Your task to perform on an android device: stop showing notifications on the lock screen Image 0: 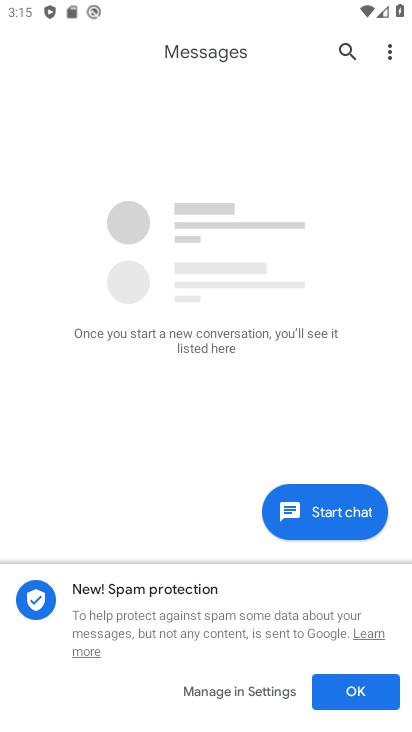
Step 0: press home button
Your task to perform on an android device: stop showing notifications on the lock screen Image 1: 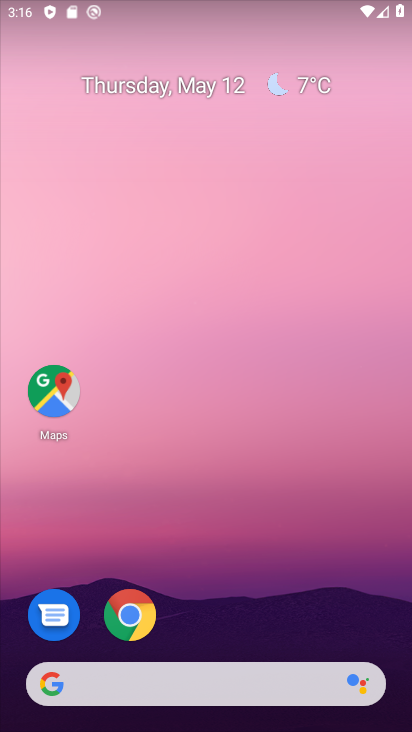
Step 1: drag from (254, 602) to (230, 79)
Your task to perform on an android device: stop showing notifications on the lock screen Image 2: 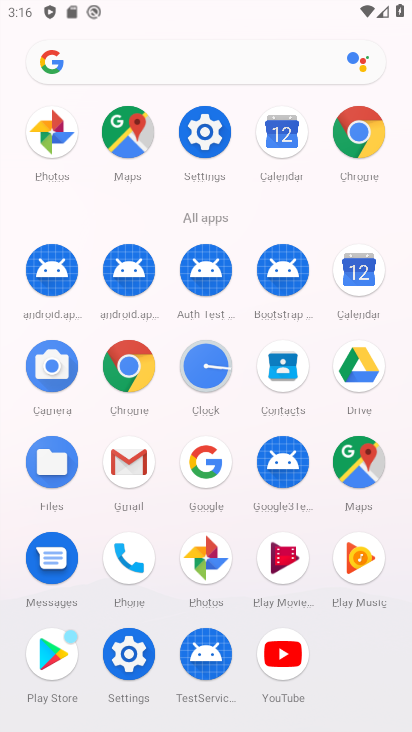
Step 2: click (207, 126)
Your task to perform on an android device: stop showing notifications on the lock screen Image 3: 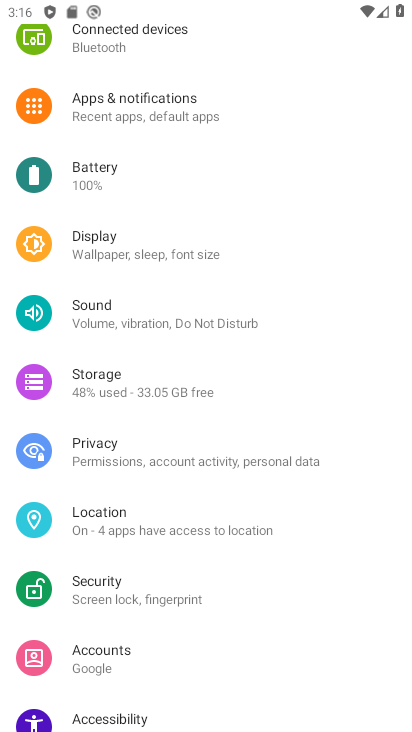
Step 3: click (144, 96)
Your task to perform on an android device: stop showing notifications on the lock screen Image 4: 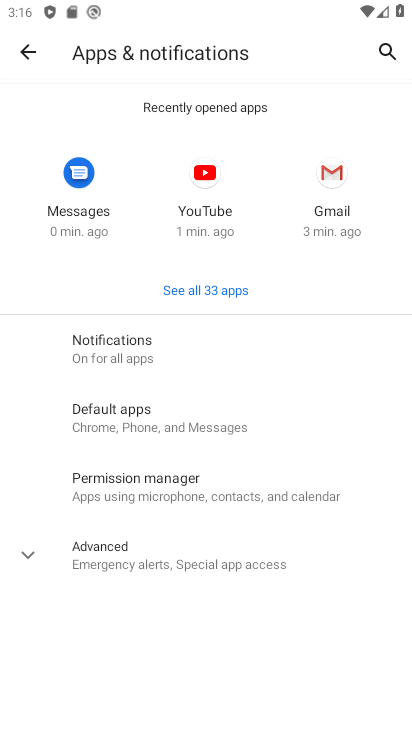
Step 4: click (137, 340)
Your task to perform on an android device: stop showing notifications on the lock screen Image 5: 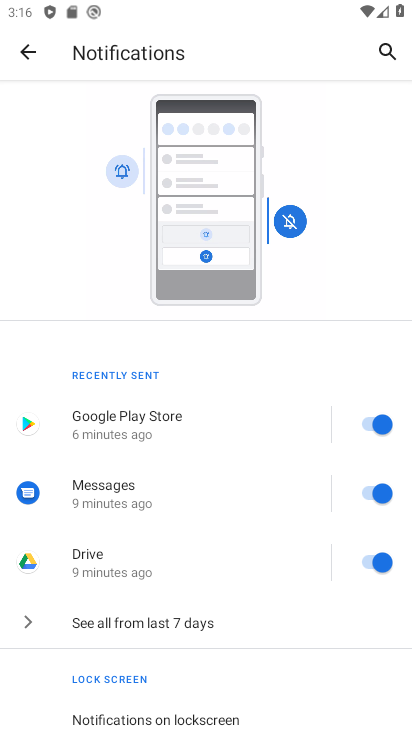
Step 5: drag from (176, 649) to (166, 205)
Your task to perform on an android device: stop showing notifications on the lock screen Image 6: 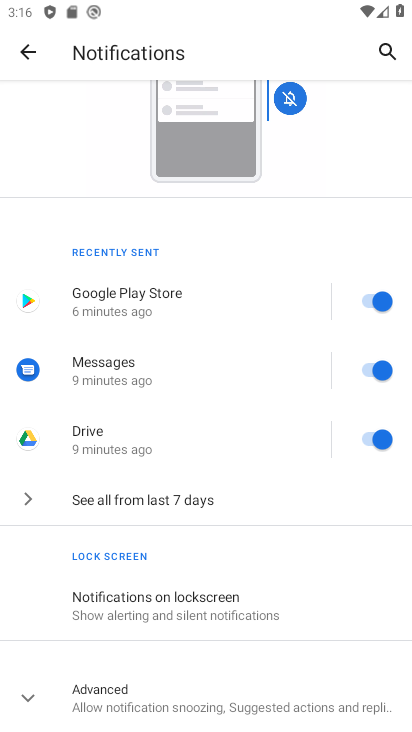
Step 6: click (253, 613)
Your task to perform on an android device: stop showing notifications on the lock screen Image 7: 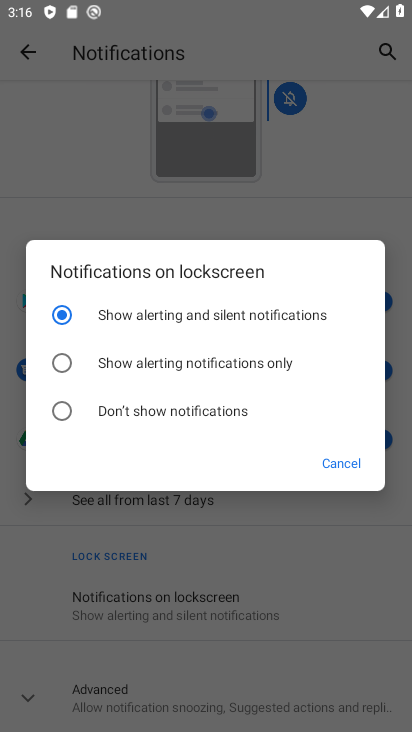
Step 7: click (162, 411)
Your task to perform on an android device: stop showing notifications on the lock screen Image 8: 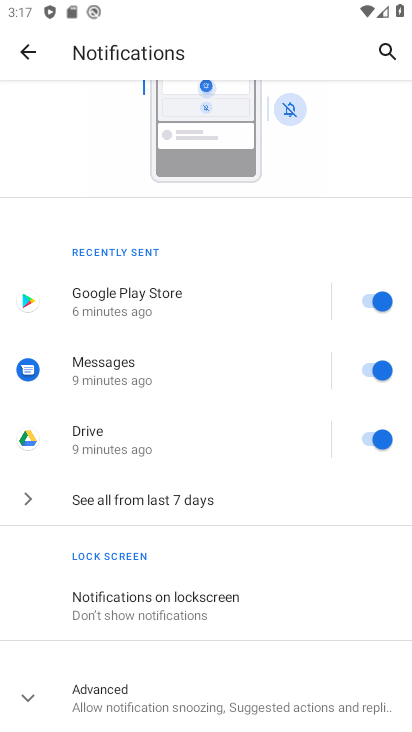
Step 8: task complete